Your task to perform on an android device: clear all cookies in the chrome app Image 0: 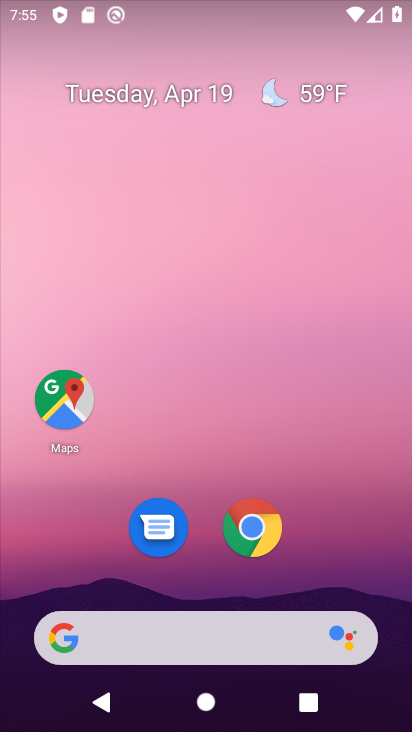
Step 0: click (243, 535)
Your task to perform on an android device: clear all cookies in the chrome app Image 1: 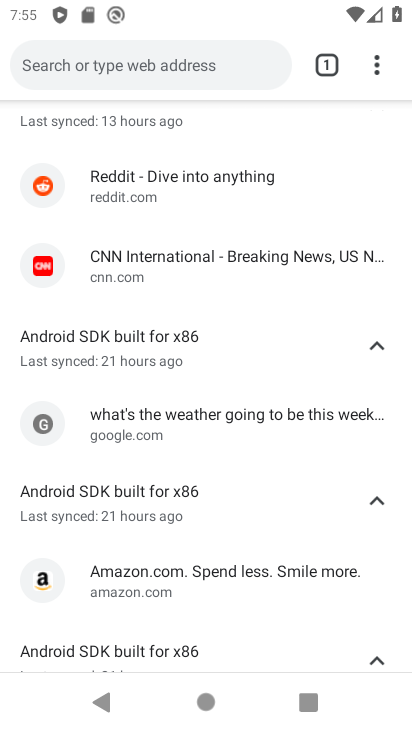
Step 1: click (380, 56)
Your task to perform on an android device: clear all cookies in the chrome app Image 2: 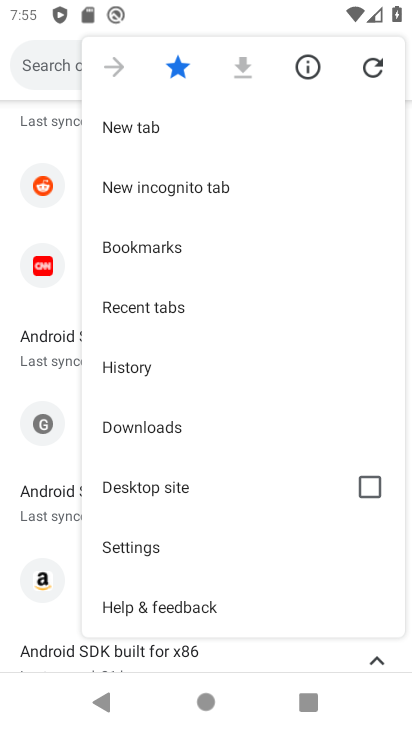
Step 2: click (140, 360)
Your task to perform on an android device: clear all cookies in the chrome app Image 3: 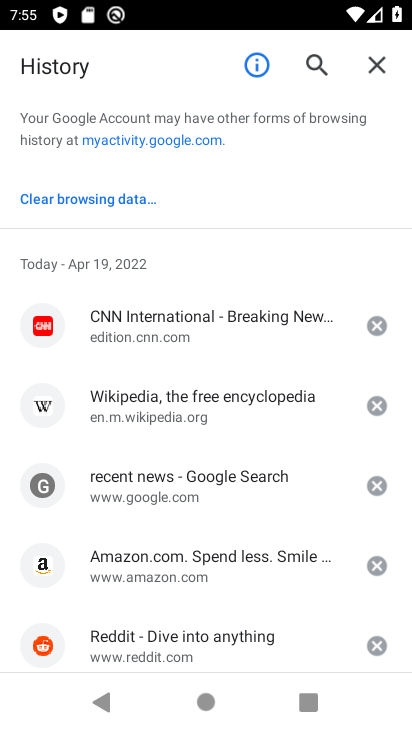
Step 3: click (101, 197)
Your task to perform on an android device: clear all cookies in the chrome app Image 4: 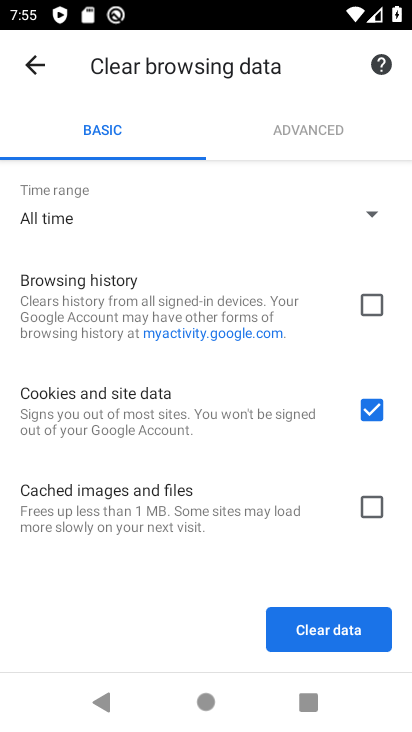
Step 4: click (324, 618)
Your task to perform on an android device: clear all cookies in the chrome app Image 5: 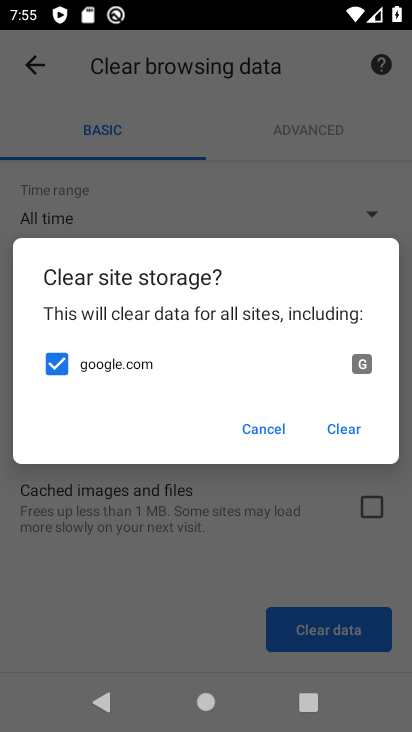
Step 5: click (338, 429)
Your task to perform on an android device: clear all cookies in the chrome app Image 6: 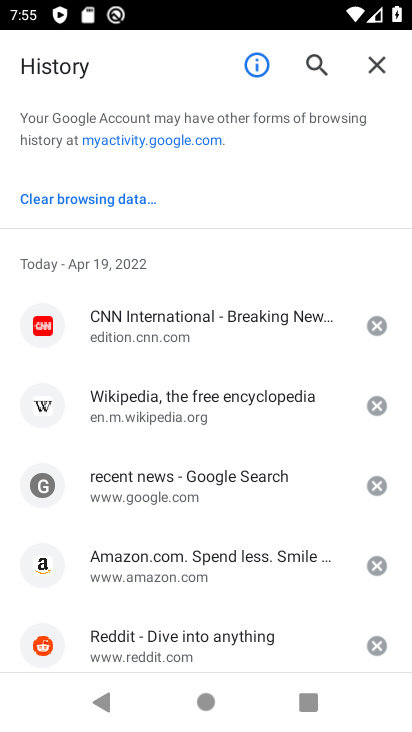
Step 6: task complete